Your task to perform on an android device: Show me popular games on the Play Store Image 0: 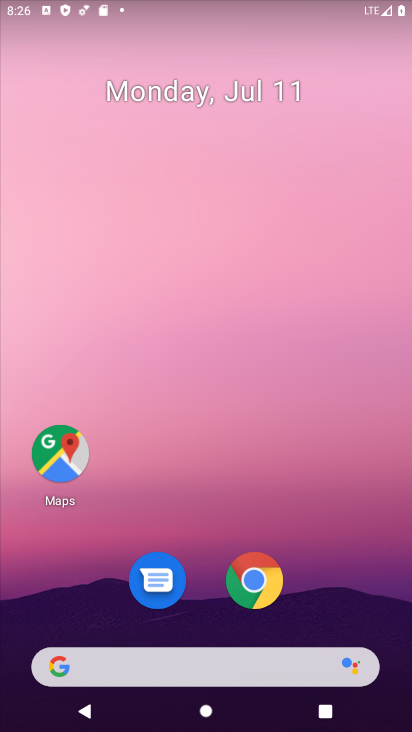
Step 0: drag from (305, 505) to (296, 0)
Your task to perform on an android device: Show me popular games on the Play Store Image 1: 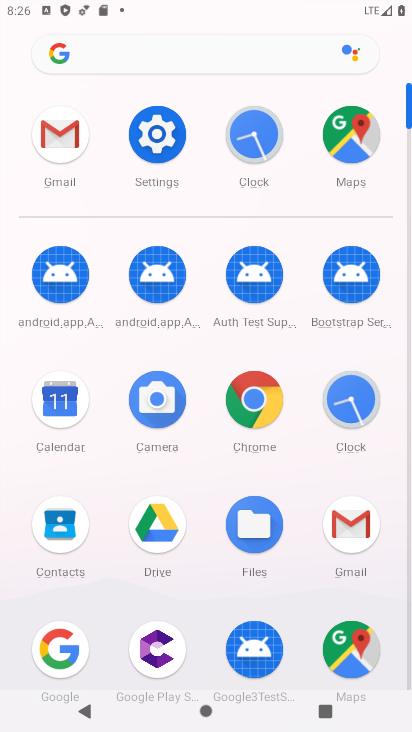
Step 1: drag from (208, 514) to (199, 186)
Your task to perform on an android device: Show me popular games on the Play Store Image 2: 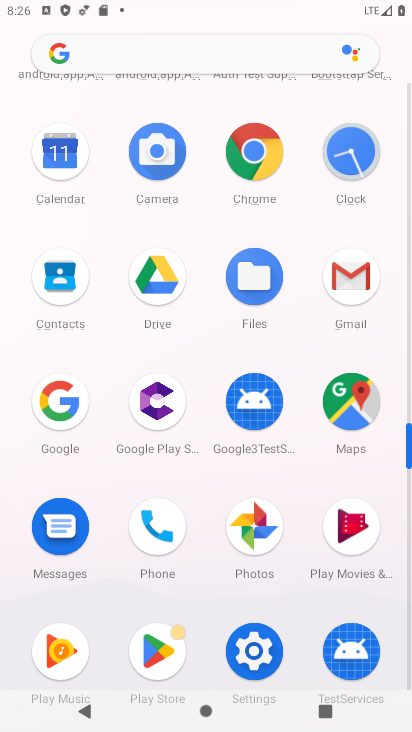
Step 2: click (159, 648)
Your task to perform on an android device: Show me popular games on the Play Store Image 3: 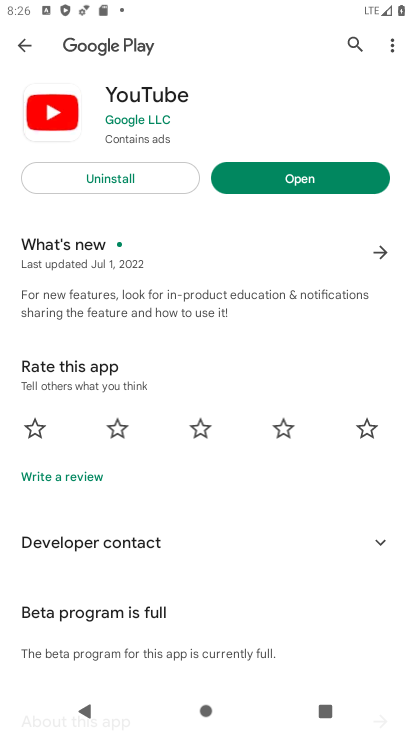
Step 3: click (24, 37)
Your task to perform on an android device: Show me popular games on the Play Store Image 4: 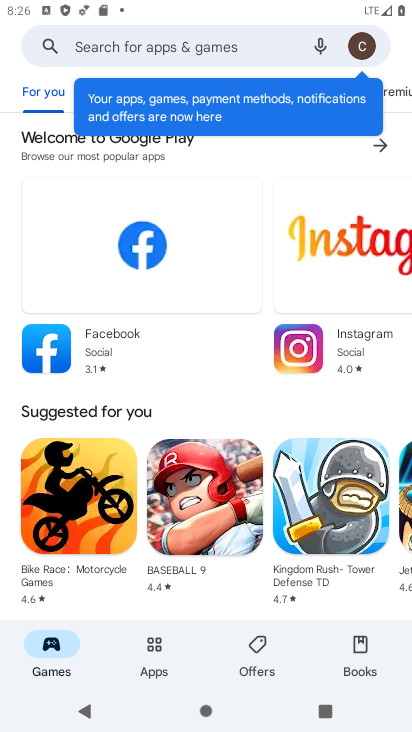
Step 4: drag from (255, 421) to (250, 141)
Your task to perform on an android device: Show me popular games on the Play Store Image 5: 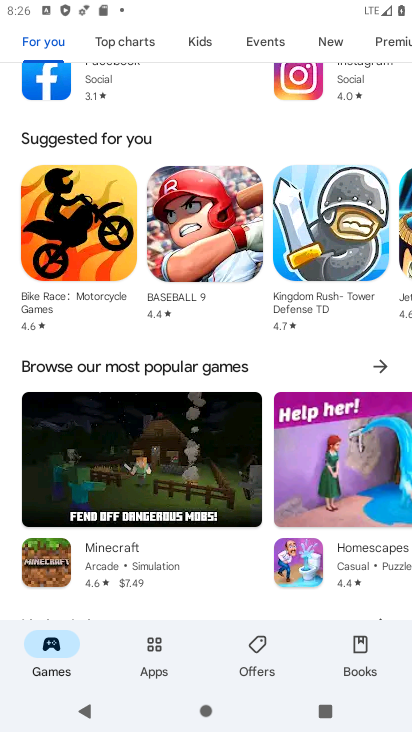
Step 5: click (377, 359)
Your task to perform on an android device: Show me popular games on the Play Store Image 6: 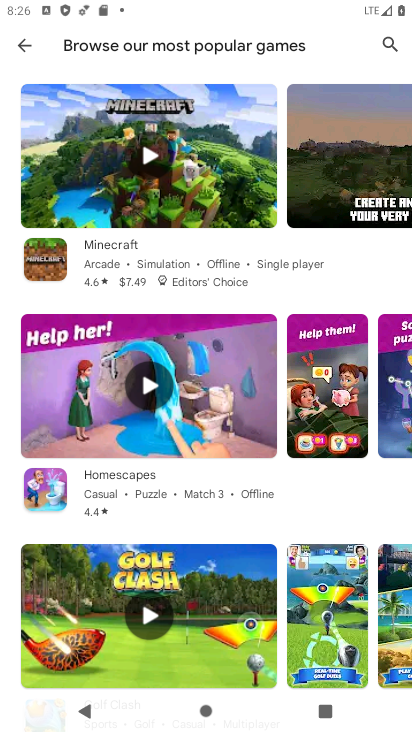
Step 6: task complete